Your task to perform on an android device: see creations saved in the google photos Image 0: 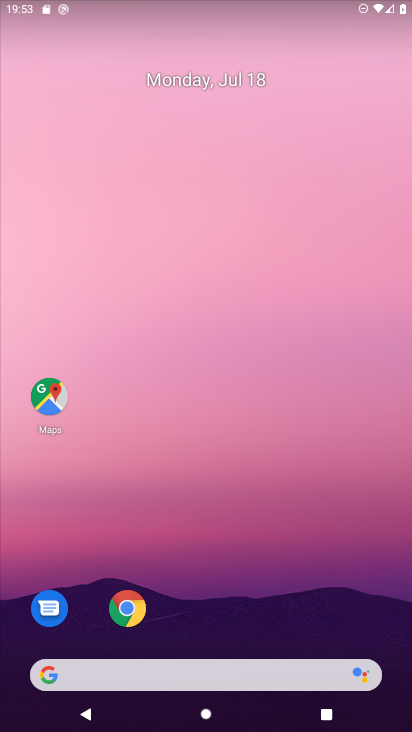
Step 0: drag from (201, 631) to (212, 135)
Your task to perform on an android device: see creations saved in the google photos Image 1: 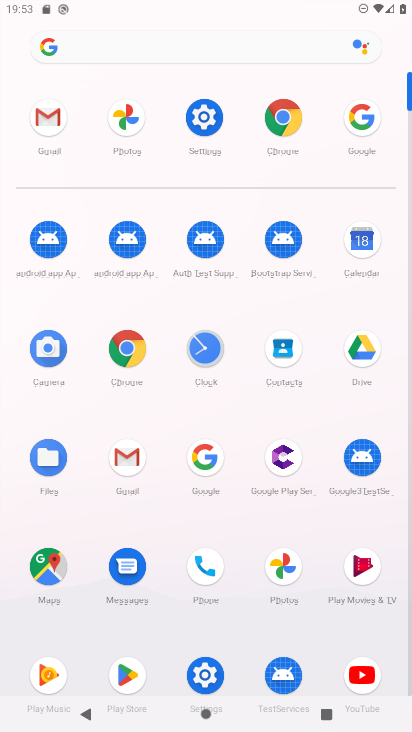
Step 1: click (282, 568)
Your task to perform on an android device: see creations saved in the google photos Image 2: 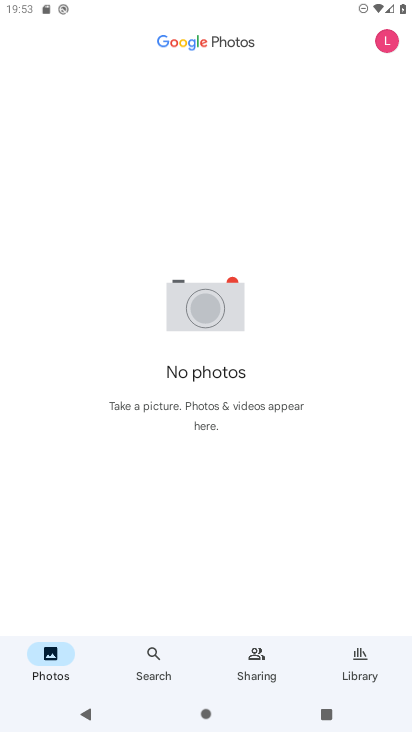
Step 2: click (148, 666)
Your task to perform on an android device: see creations saved in the google photos Image 3: 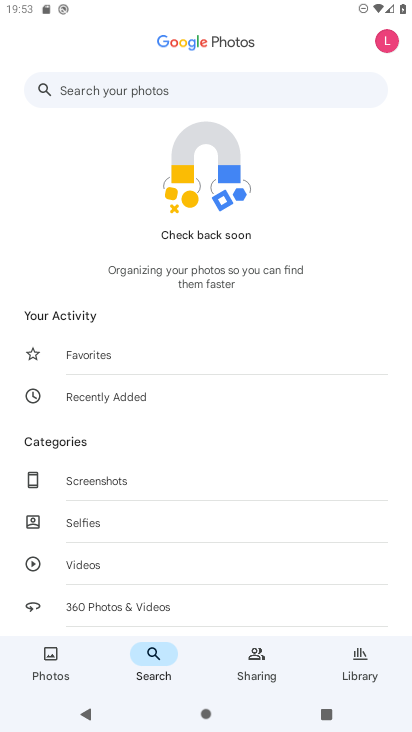
Step 3: drag from (184, 583) to (180, 170)
Your task to perform on an android device: see creations saved in the google photos Image 4: 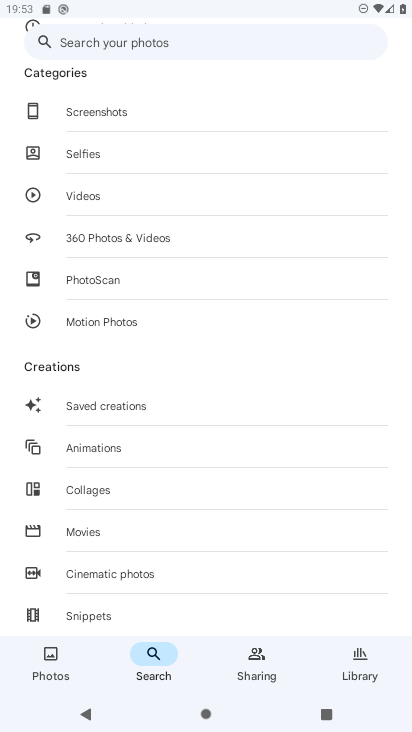
Step 4: click (107, 411)
Your task to perform on an android device: see creations saved in the google photos Image 5: 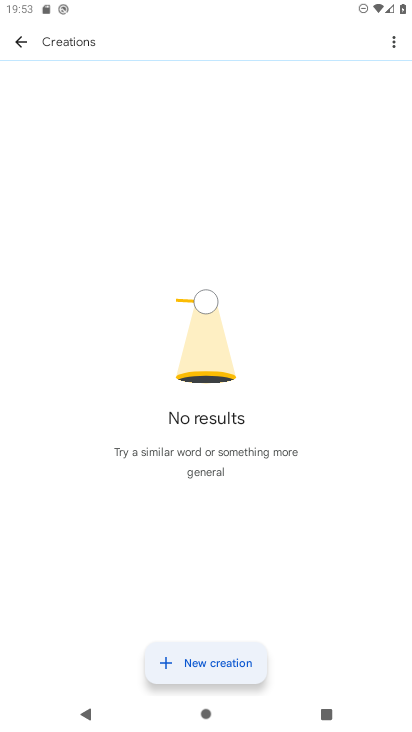
Step 5: task complete